Your task to perform on an android device: Go to eBay Image 0: 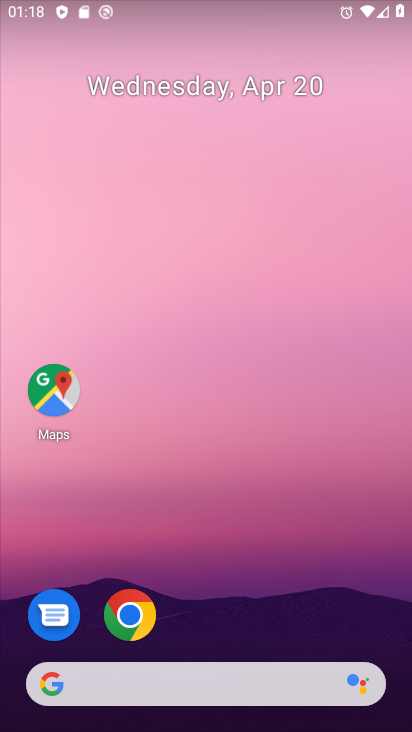
Step 0: click (133, 603)
Your task to perform on an android device: Go to eBay Image 1: 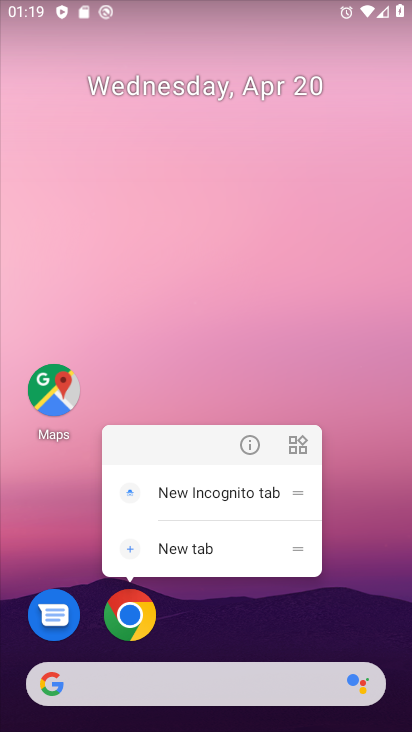
Step 1: click (143, 609)
Your task to perform on an android device: Go to eBay Image 2: 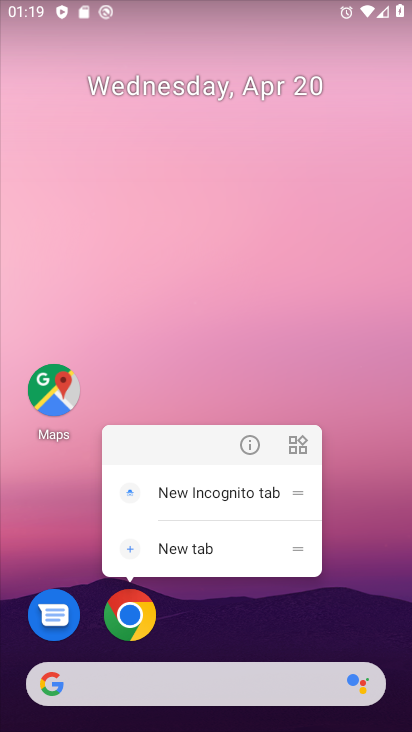
Step 2: click (139, 610)
Your task to perform on an android device: Go to eBay Image 3: 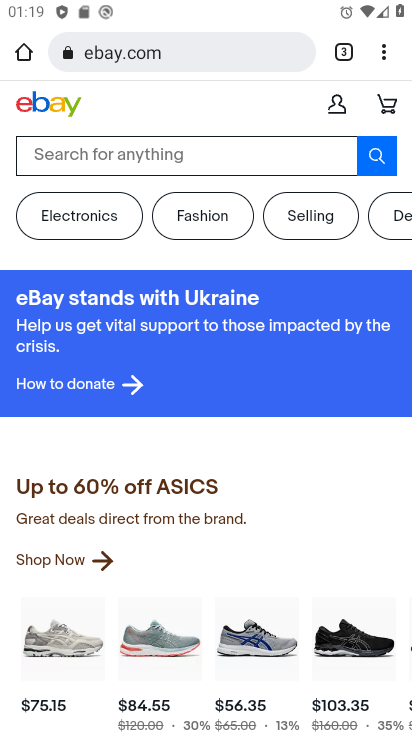
Step 3: click (139, 610)
Your task to perform on an android device: Go to eBay Image 4: 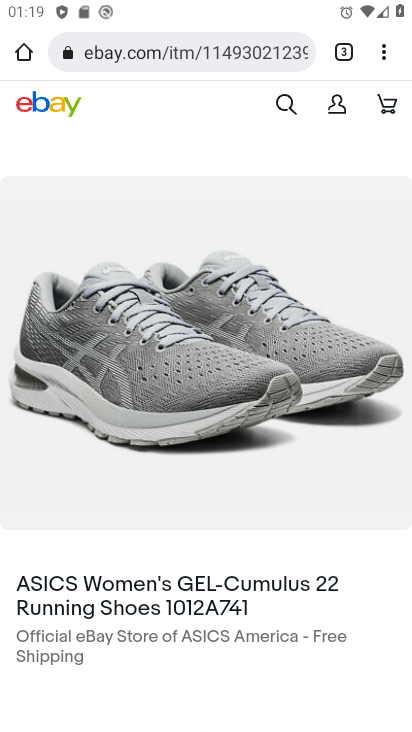
Step 4: task complete